Your task to perform on an android device: Do I have any events this weekend? Image 0: 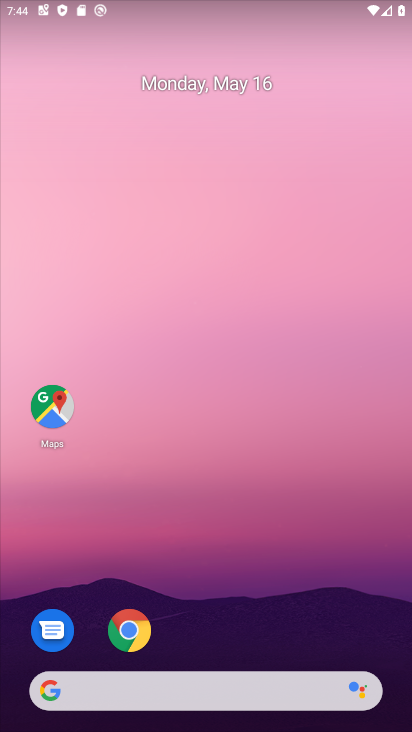
Step 0: drag from (214, 585) to (246, 104)
Your task to perform on an android device: Do I have any events this weekend? Image 1: 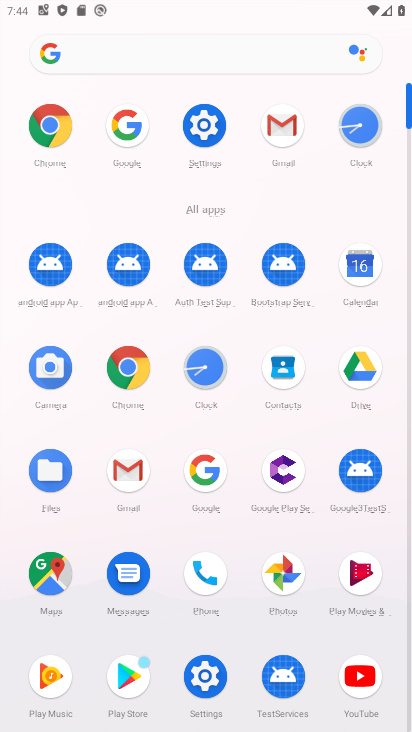
Step 1: click (352, 276)
Your task to perform on an android device: Do I have any events this weekend? Image 2: 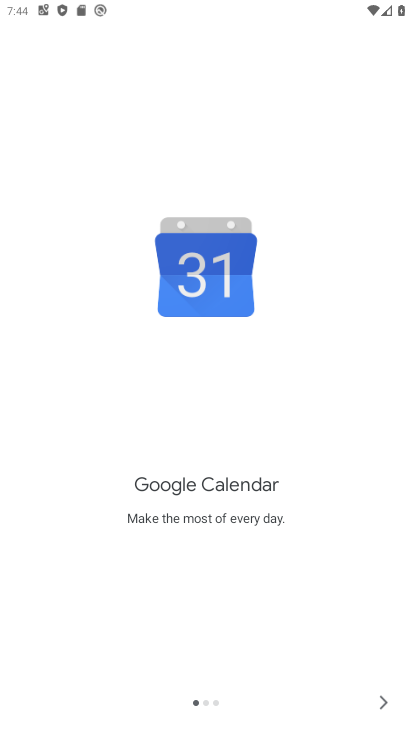
Step 2: click (371, 689)
Your task to perform on an android device: Do I have any events this weekend? Image 3: 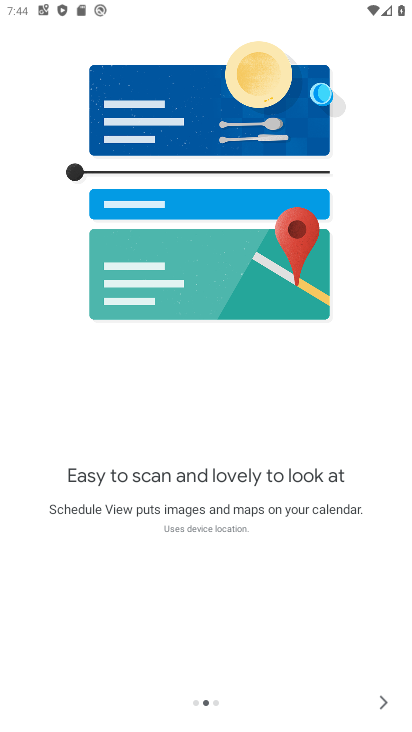
Step 3: click (380, 693)
Your task to perform on an android device: Do I have any events this weekend? Image 4: 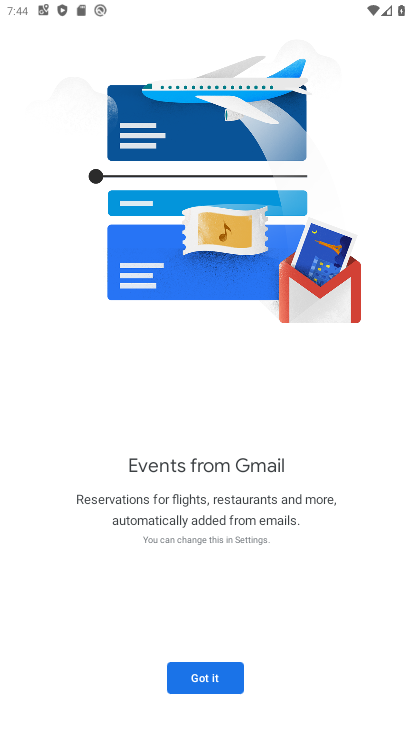
Step 4: click (380, 693)
Your task to perform on an android device: Do I have any events this weekend? Image 5: 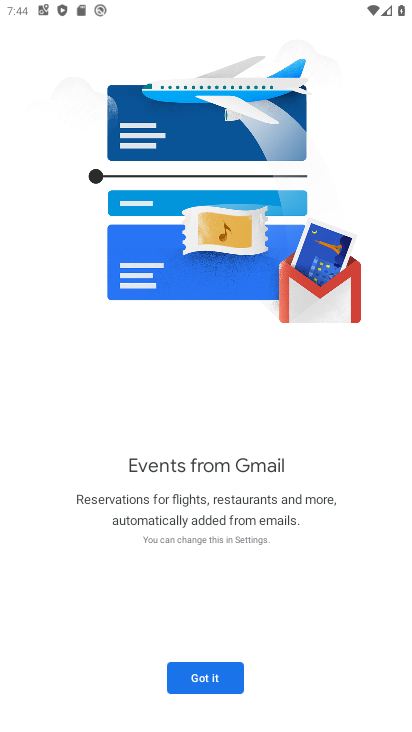
Step 5: click (216, 676)
Your task to perform on an android device: Do I have any events this weekend? Image 6: 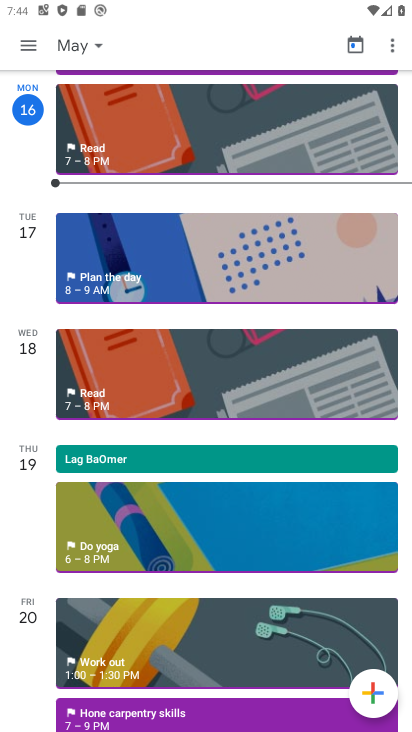
Step 6: click (20, 36)
Your task to perform on an android device: Do I have any events this weekend? Image 7: 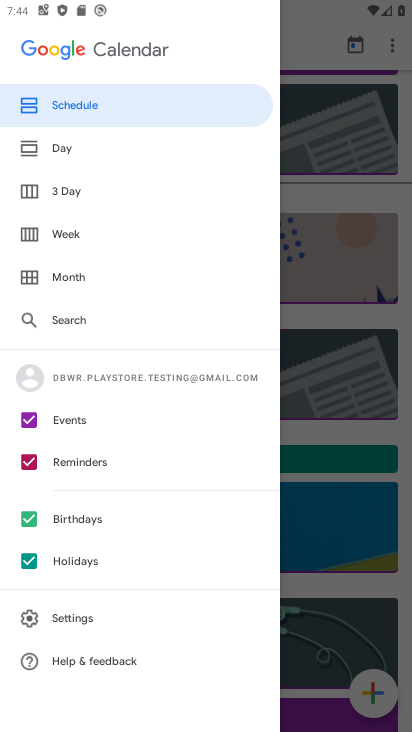
Step 7: click (48, 237)
Your task to perform on an android device: Do I have any events this weekend? Image 8: 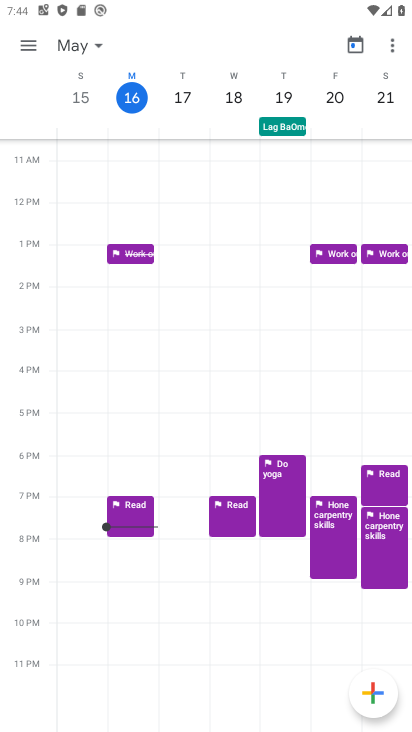
Step 8: drag from (344, 342) to (204, 316)
Your task to perform on an android device: Do I have any events this weekend? Image 9: 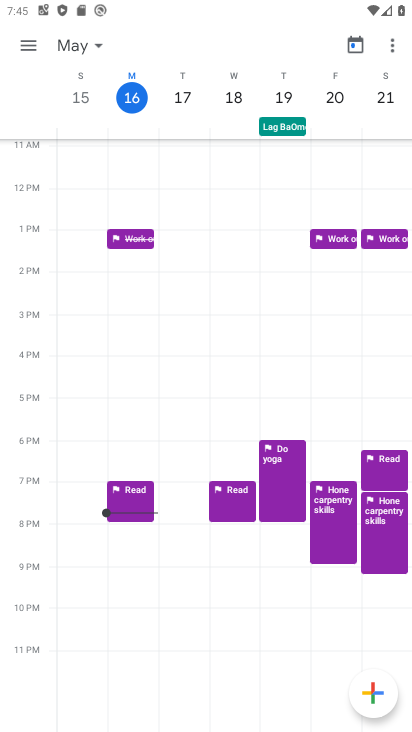
Step 9: click (29, 35)
Your task to perform on an android device: Do I have any events this weekend? Image 10: 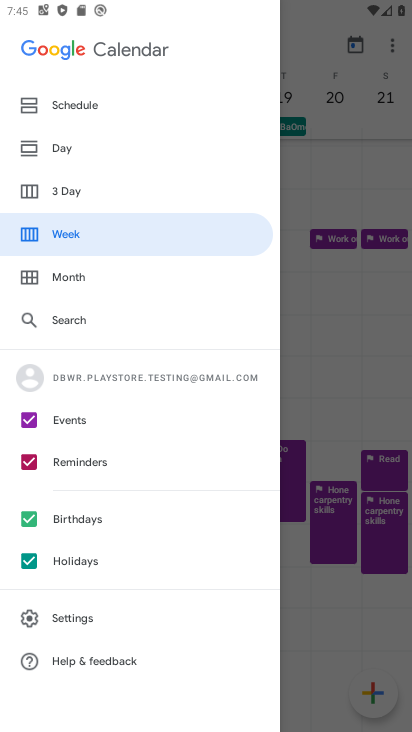
Step 10: click (56, 424)
Your task to perform on an android device: Do I have any events this weekend? Image 11: 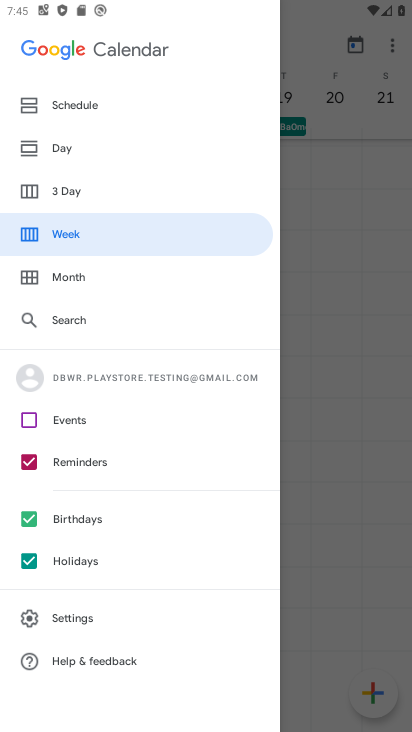
Step 11: click (58, 420)
Your task to perform on an android device: Do I have any events this weekend? Image 12: 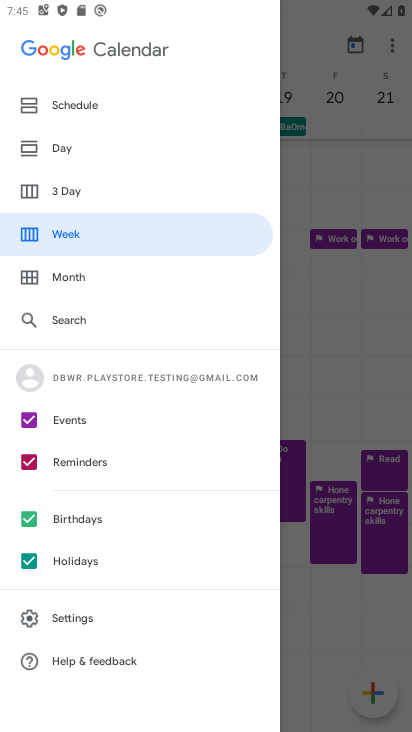
Step 12: click (362, 337)
Your task to perform on an android device: Do I have any events this weekend? Image 13: 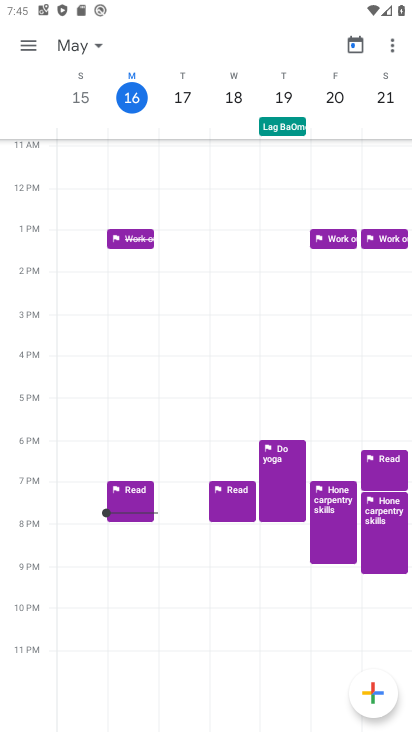
Step 13: click (362, 337)
Your task to perform on an android device: Do I have any events this weekend? Image 14: 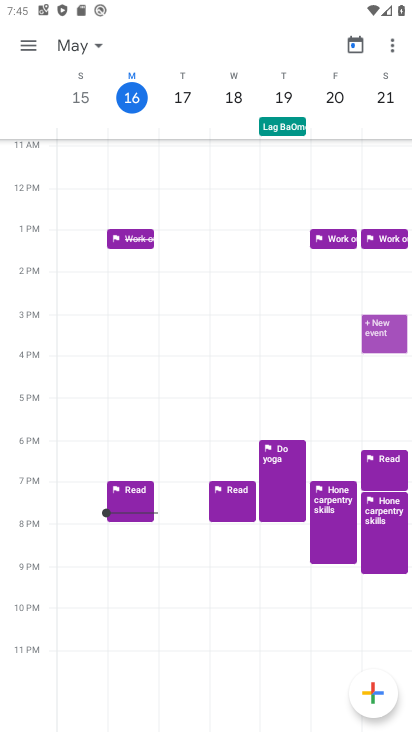
Step 14: task complete